Your task to perform on an android device: open sync settings in chrome Image 0: 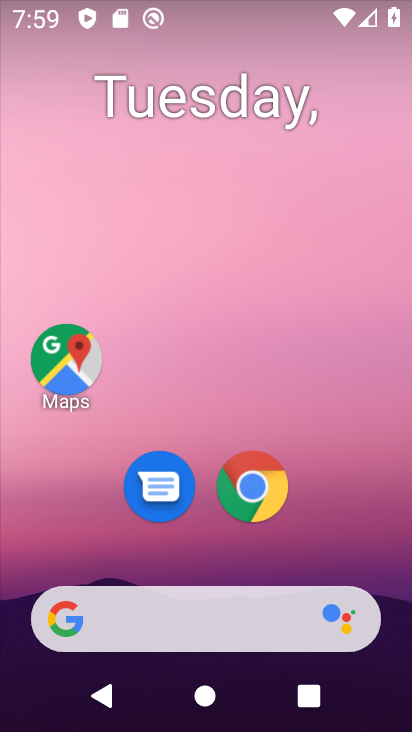
Step 0: click (264, 492)
Your task to perform on an android device: open sync settings in chrome Image 1: 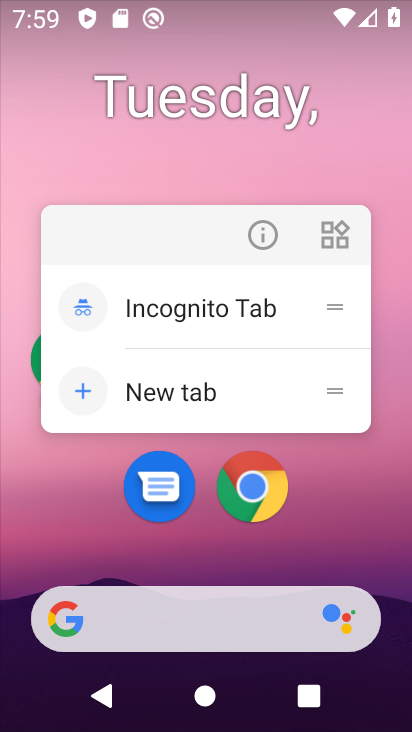
Step 1: click (264, 492)
Your task to perform on an android device: open sync settings in chrome Image 2: 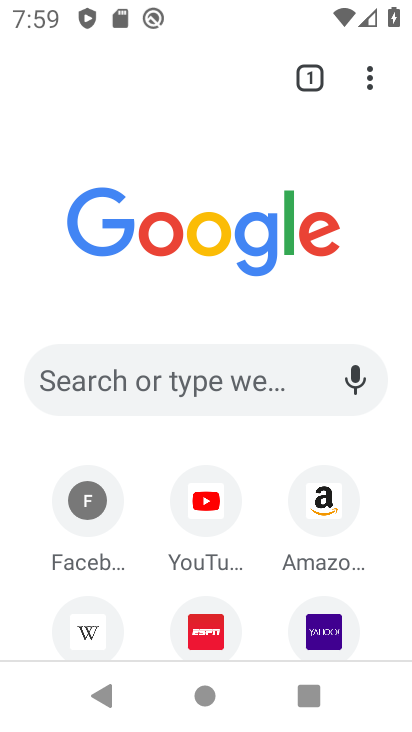
Step 2: click (362, 85)
Your task to perform on an android device: open sync settings in chrome Image 3: 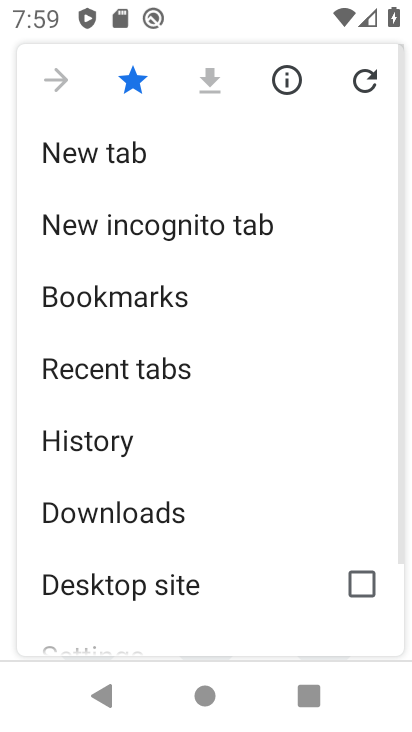
Step 3: drag from (263, 611) to (275, 209)
Your task to perform on an android device: open sync settings in chrome Image 4: 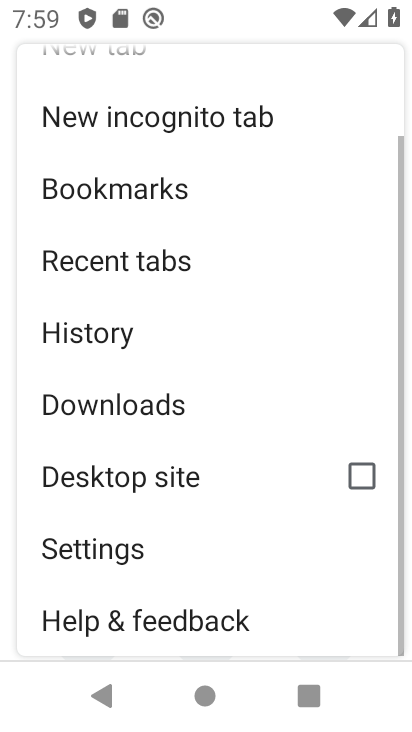
Step 4: click (175, 554)
Your task to perform on an android device: open sync settings in chrome Image 5: 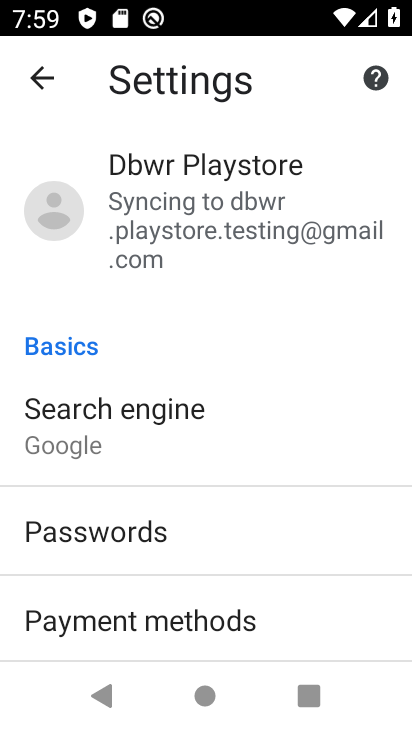
Step 5: drag from (230, 604) to (231, 138)
Your task to perform on an android device: open sync settings in chrome Image 6: 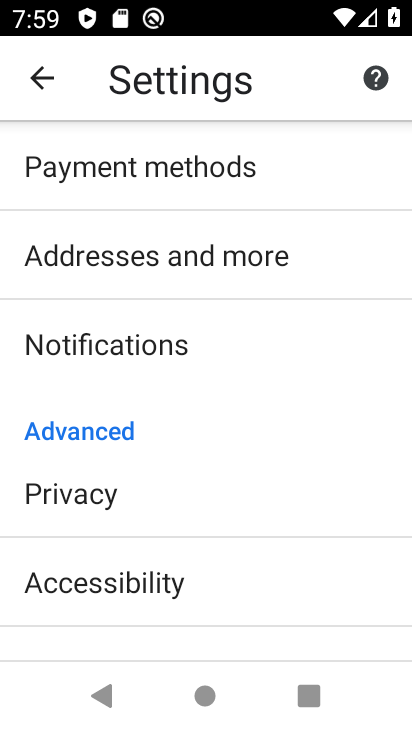
Step 6: drag from (253, 435) to (226, 147)
Your task to perform on an android device: open sync settings in chrome Image 7: 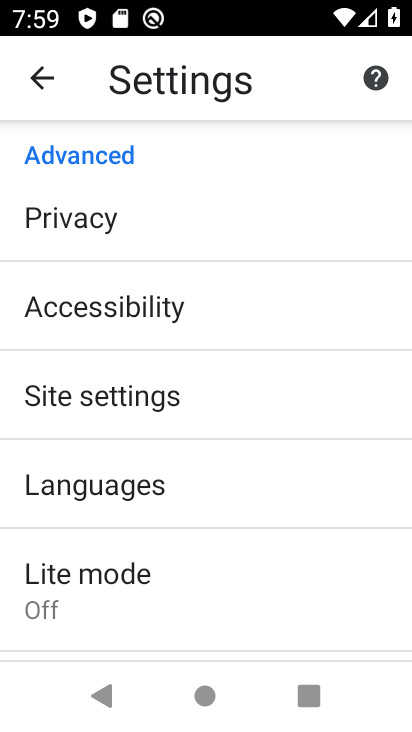
Step 7: drag from (157, 530) to (230, 371)
Your task to perform on an android device: open sync settings in chrome Image 8: 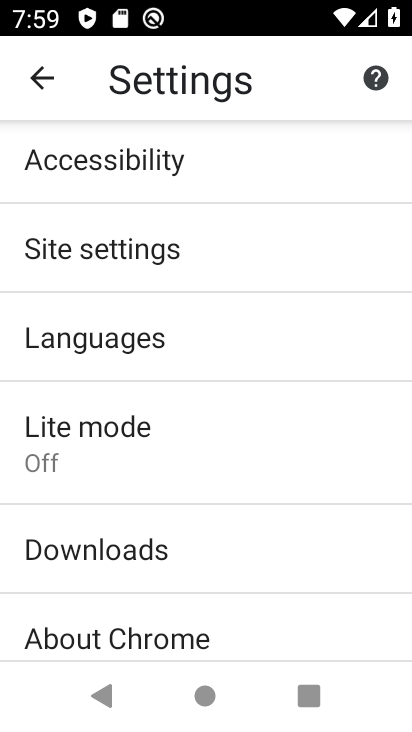
Step 8: click (137, 243)
Your task to perform on an android device: open sync settings in chrome Image 9: 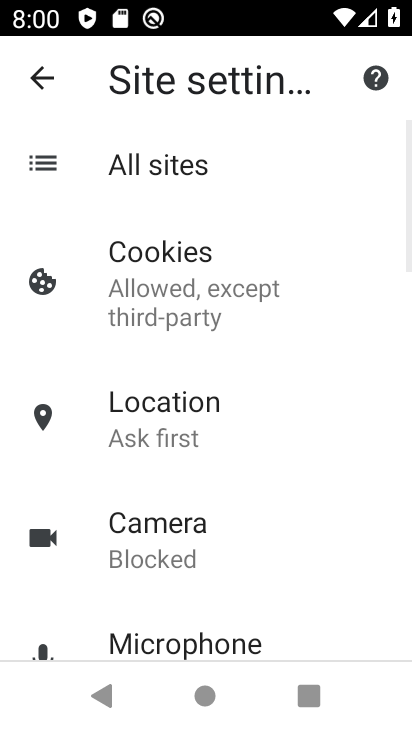
Step 9: drag from (257, 548) to (285, 180)
Your task to perform on an android device: open sync settings in chrome Image 10: 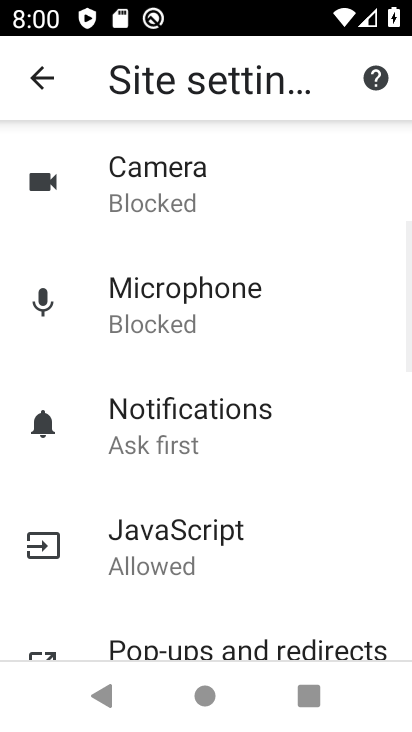
Step 10: drag from (305, 533) to (331, 167)
Your task to perform on an android device: open sync settings in chrome Image 11: 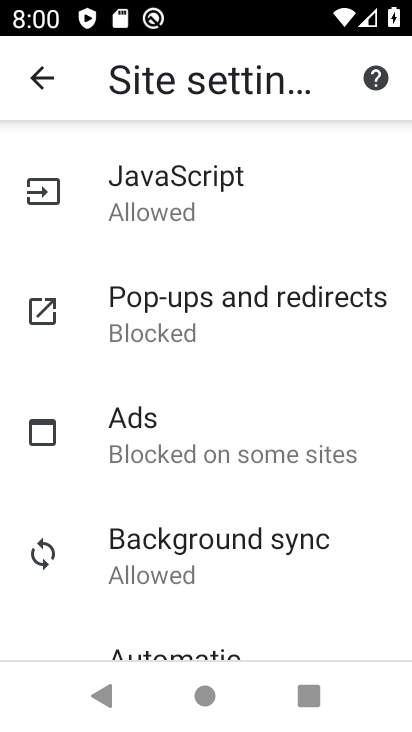
Step 11: click (321, 558)
Your task to perform on an android device: open sync settings in chrome Image 12: 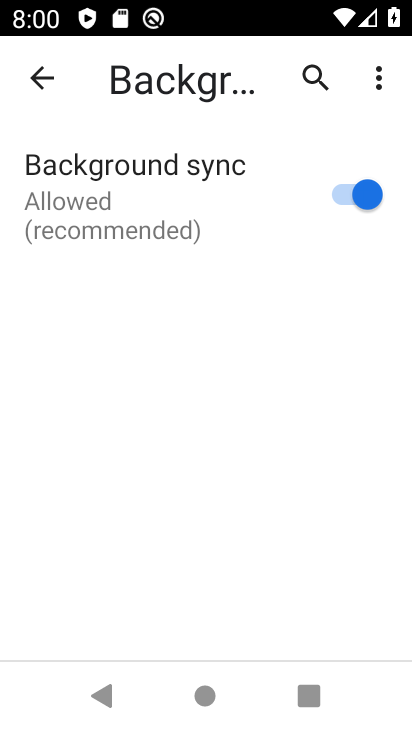
Step 12: task complete